Your task to perform on an android device: set default search engine in the chrome app Image 0: 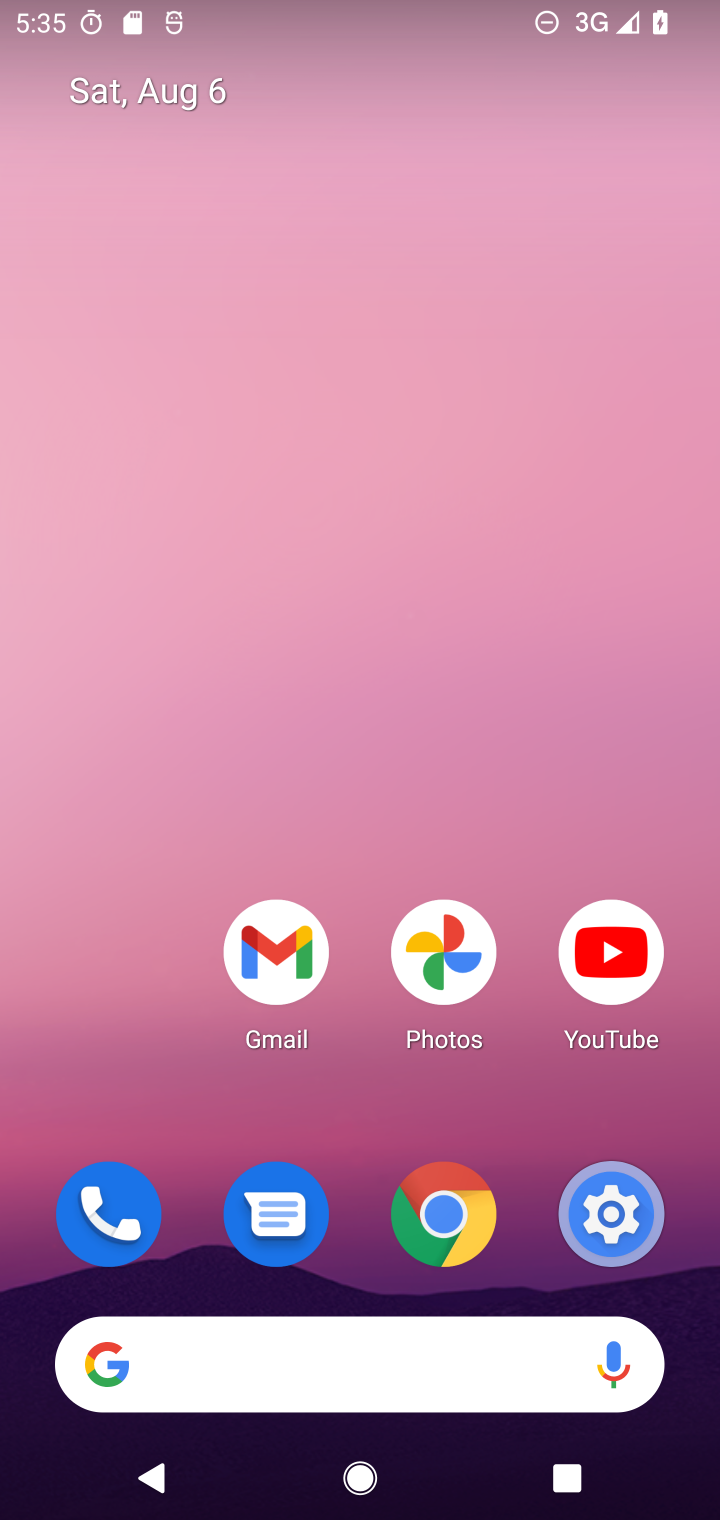
Step 0: click (443, 1233)
Your task to perform on an android device: set default search engine in the chrome app Image 1: 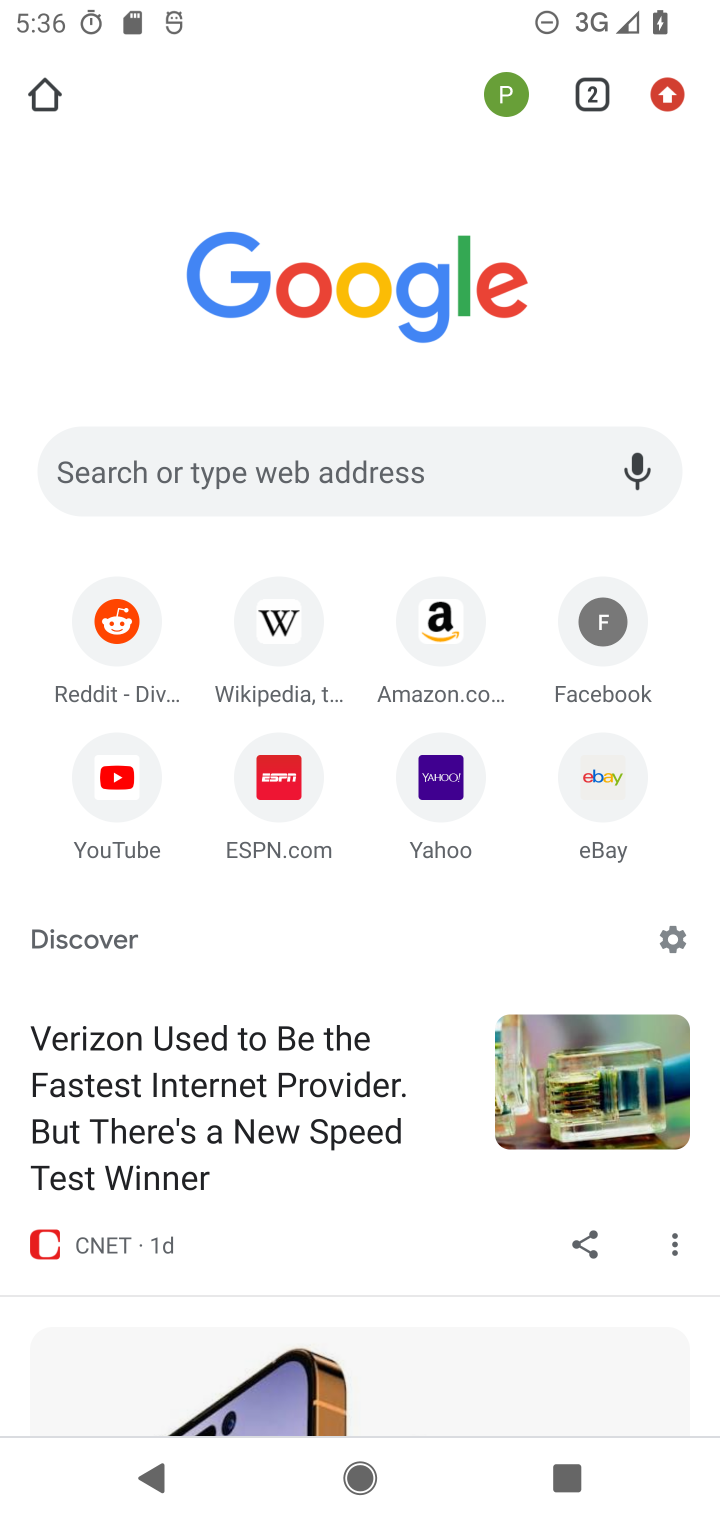
Step 1: click (670, 100)
Your task to perform on an android device: set default search engine in the chrome app Image 2: 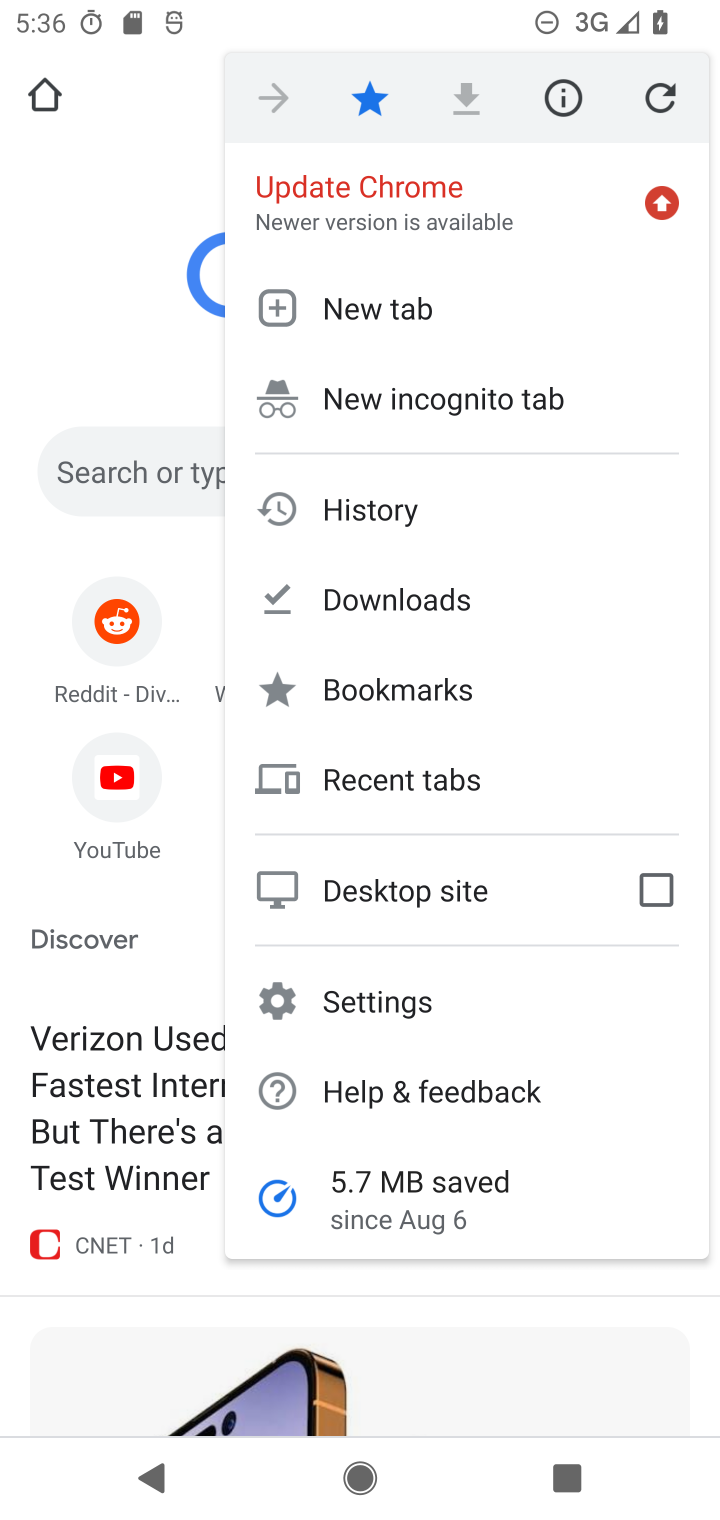
Step 2: click (395, 1004)
Your task to perform on an android device: set default search engine in the chrome app Image 3: 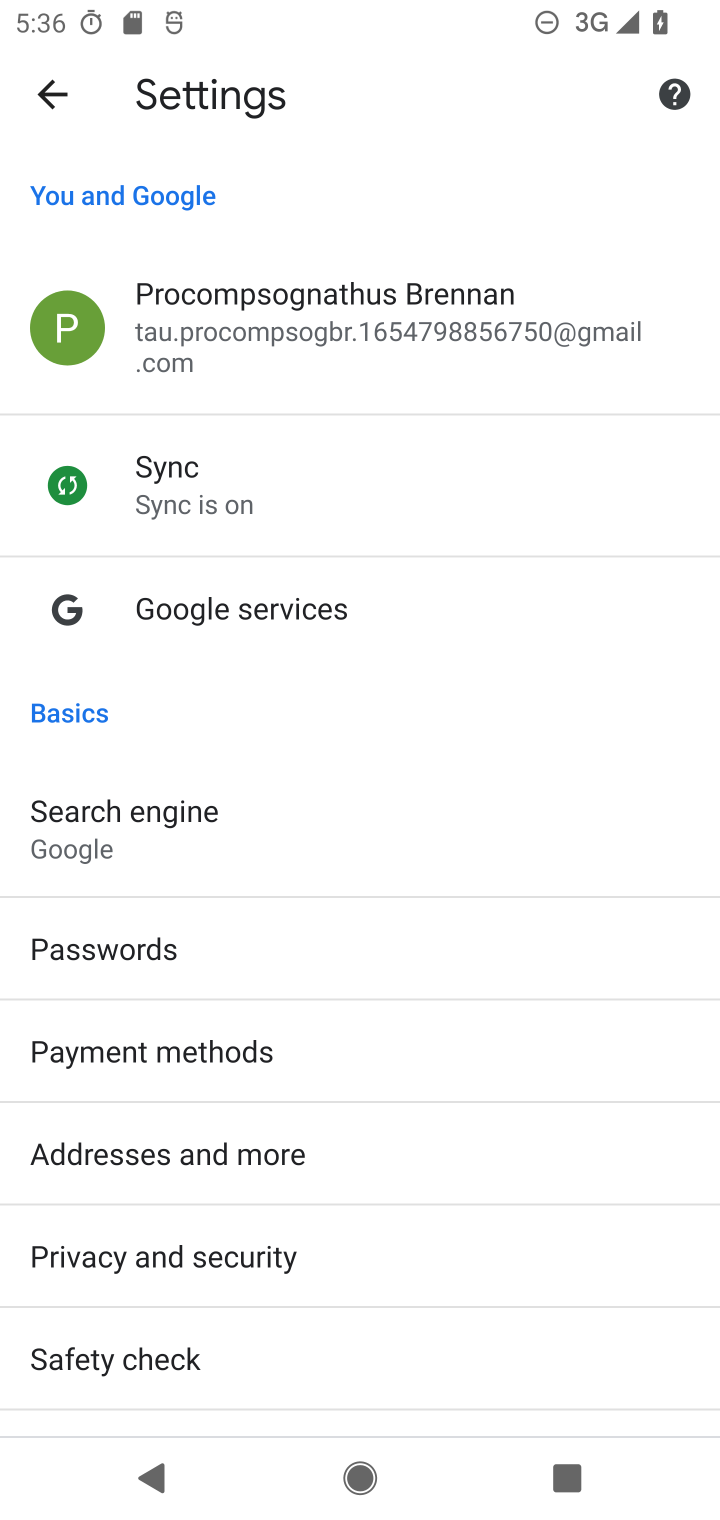
Step 3: drag from (207, 1216) to (293, 822)
Your task to perform on an android device: set default search engine in the chrome app Image 4: 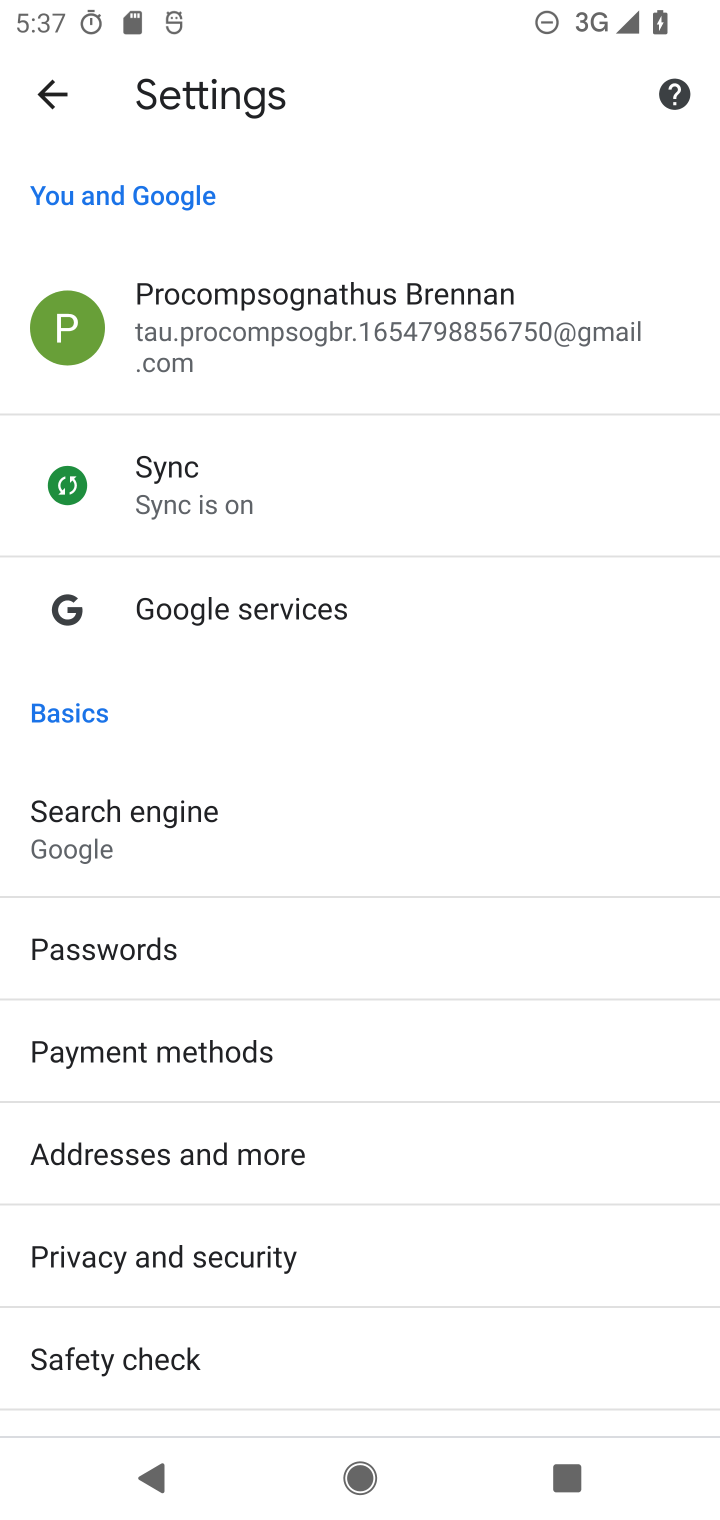
Step 4: click (127, 818)
Your task to perform on an android device: set default search engine in the chrome app Image 5: 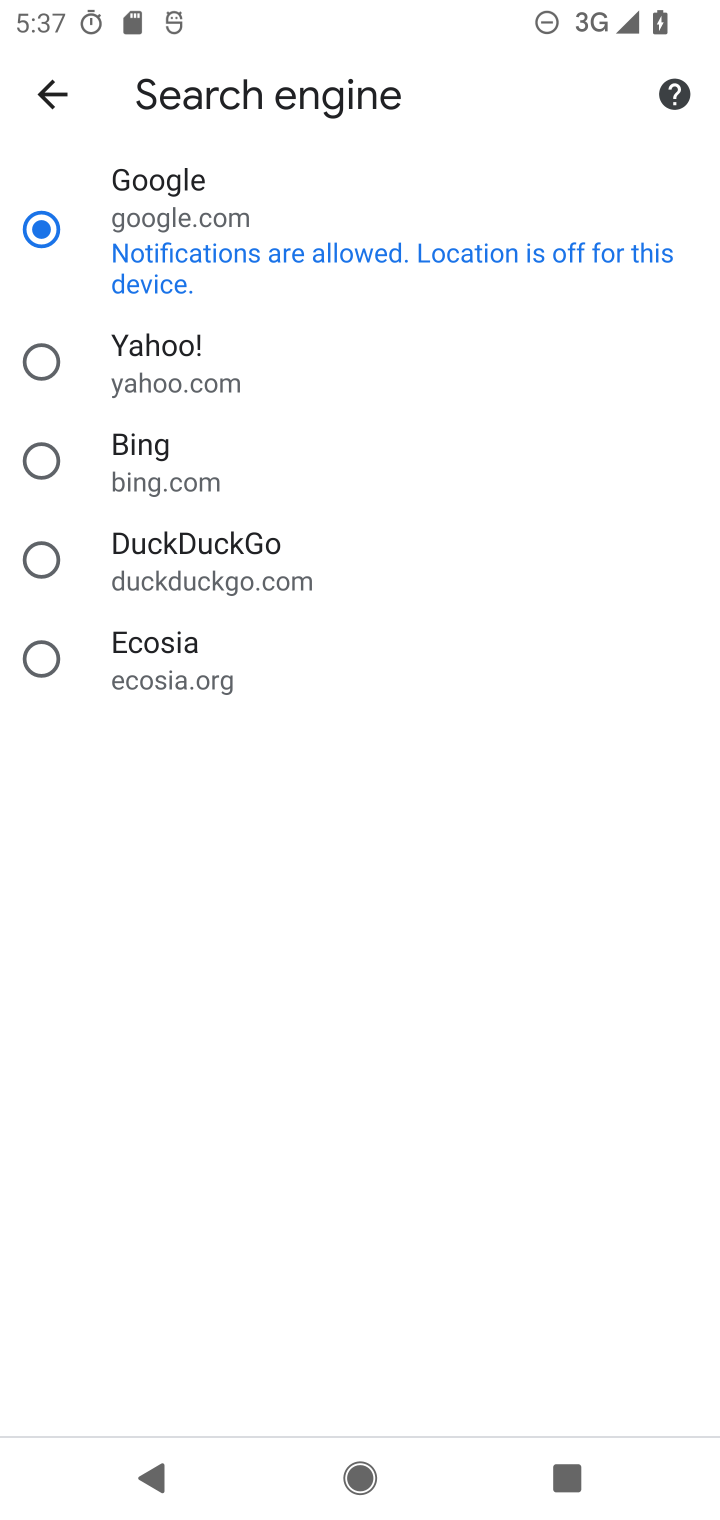
Step 5: click (45, 375)
Your task to perform on an android device: set default search engine in the chrome app Image 6: 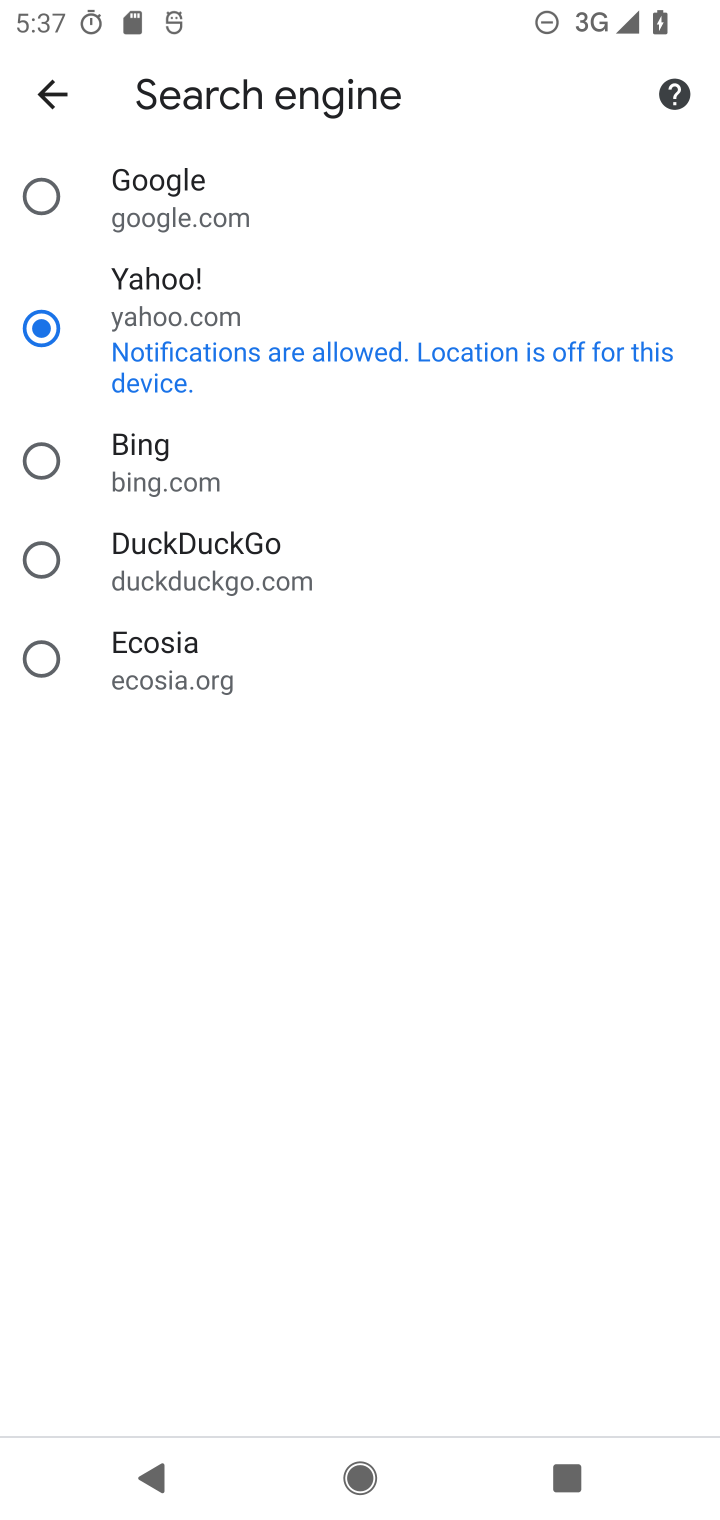
Step 6: task complete